Your task to perform on an android device: What is the recent news? Image 0: 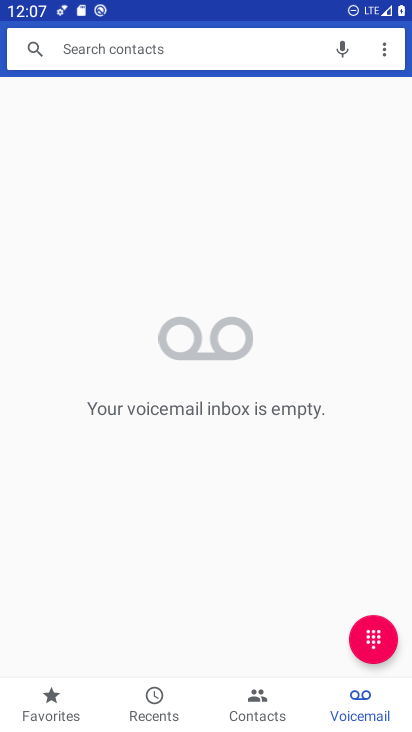
Step 0: press home button
Your task to perform on an android device: What is the recent news? Image 1: 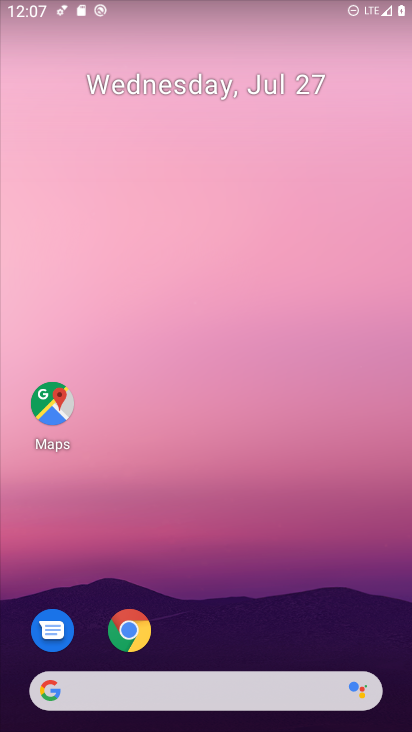
Step 1: click (372, 640)
Your task to perform on an android device: What is the recent news? Image 2: 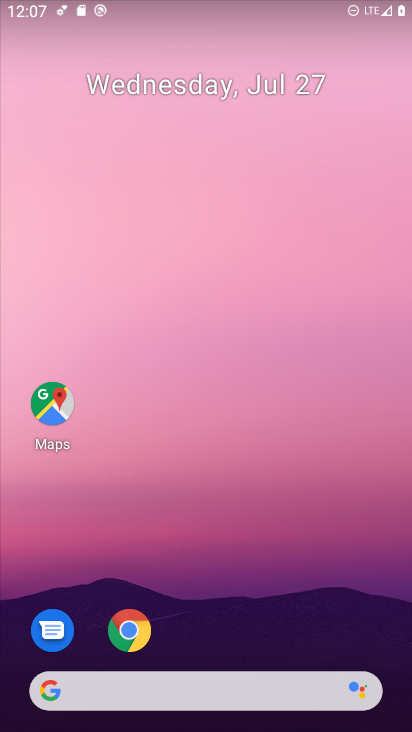
Step 2: task complete